Your task to perform on an android device: toggle pop-ups in chrome Image 0: 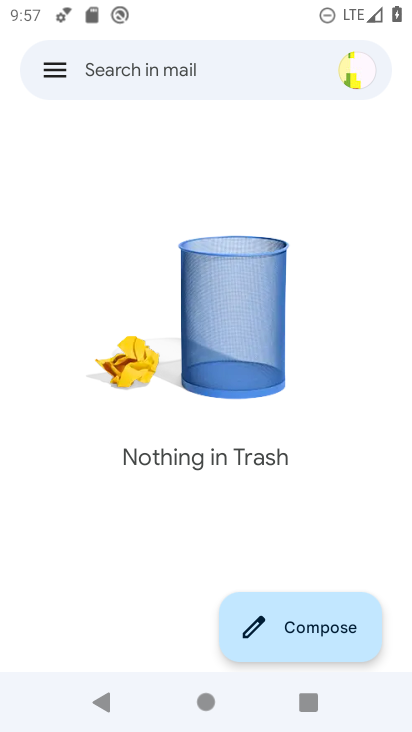
Step 0: press home button
Your task to perform on an android device: toggle pop-ups in chrome Image 1: 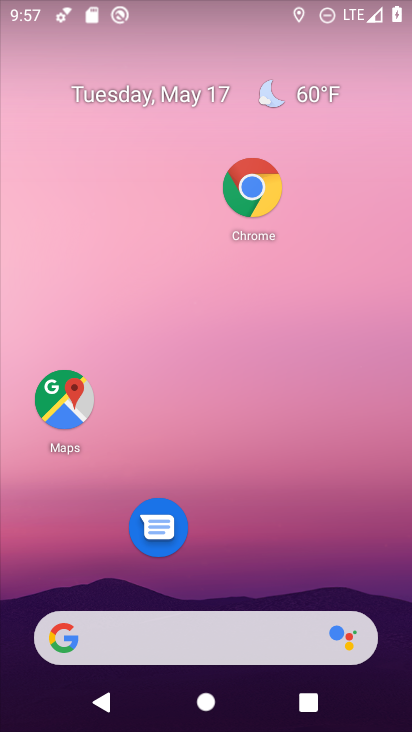
Step 1: click (259, 227)
Your task to perform on an android device: toggle pop-ups in chrome Image 2: 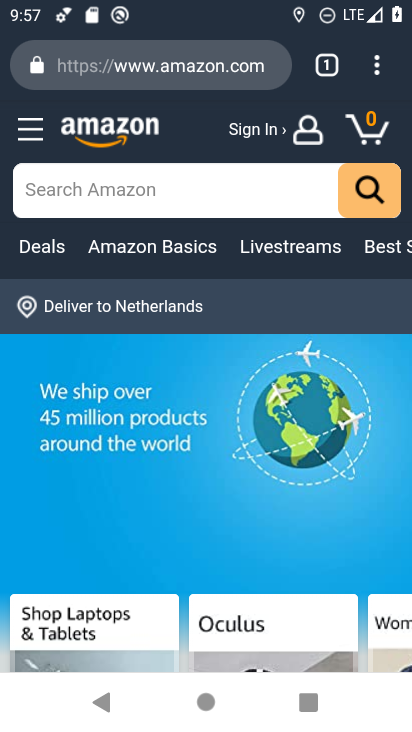
Step 2: click (387, 66)
Your task to perform on an android device: toggle pop-ups in chrome Image 3: 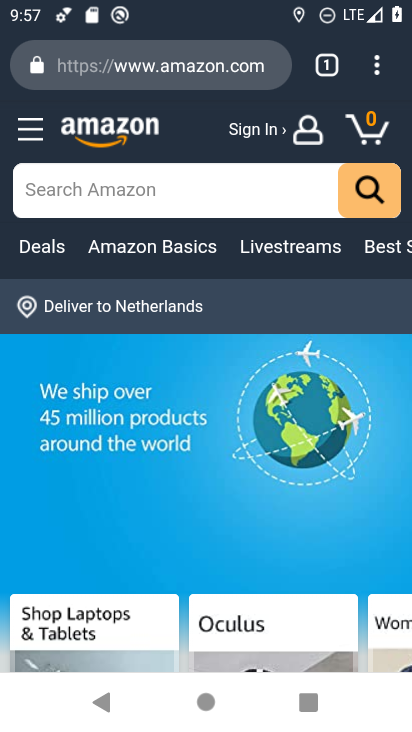
Step 3: click (372, 73)
Your task to perform on an android device: toggle pop-ups in chrome Image 4: 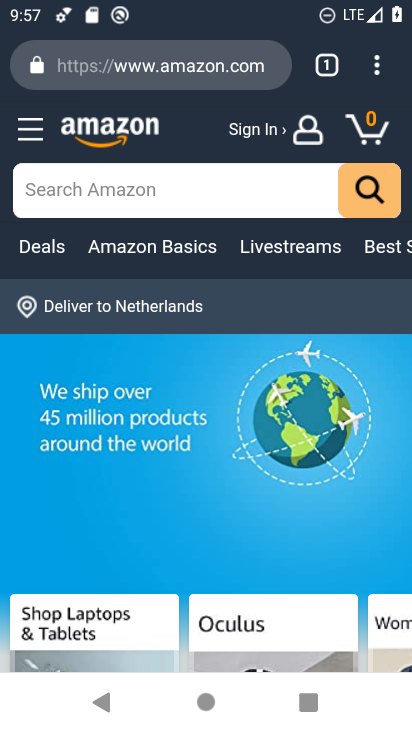
Step 4: click (376, 57)
Your task to perform on an android device: toggle pop-ups in chrome Image 5: 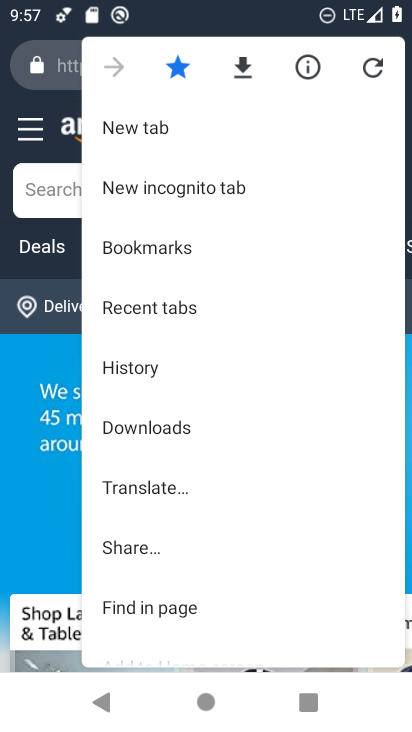
Step 5: drag from (196, 556) to (246, 372)
Your task to perform on an android device: toggle pop-ups in chrome Image 6: 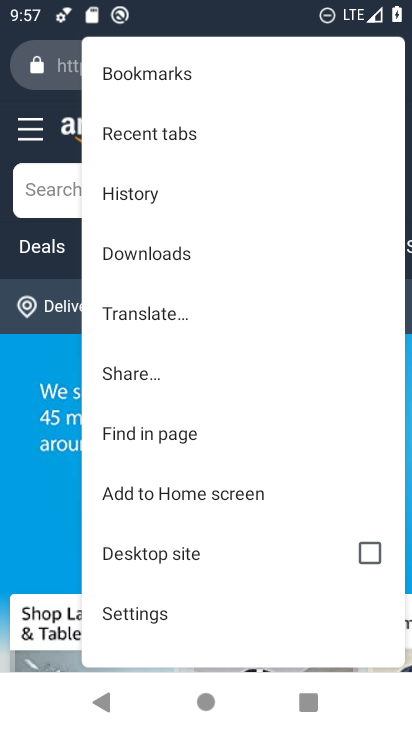
Step 6: click (218, 624)
Your task to perform on an android device: toggle pop-ups in chrome Image 7: 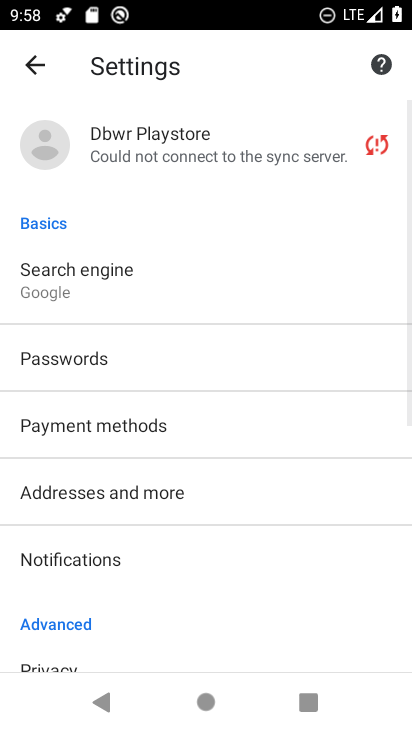
Step 7: drag from (219, 465) to (227, 221)
Your task to perform on an android device: toggle pop-ups in chrome Image 8: 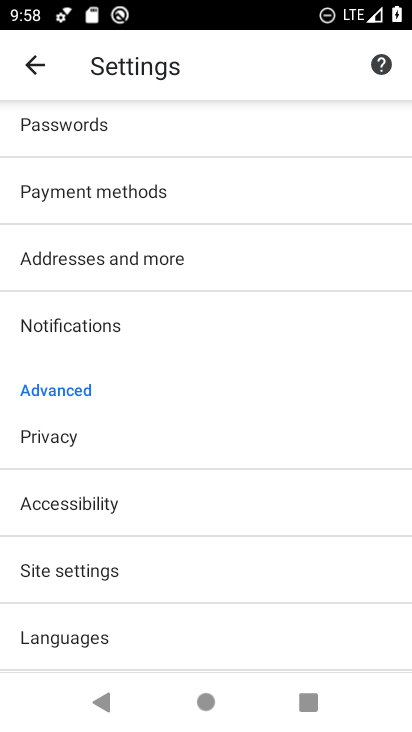
Step 8: drag from (170, 600) to (178, 411)
Your task to perform on an android device: toggle pop-ups in chrome Image 9: 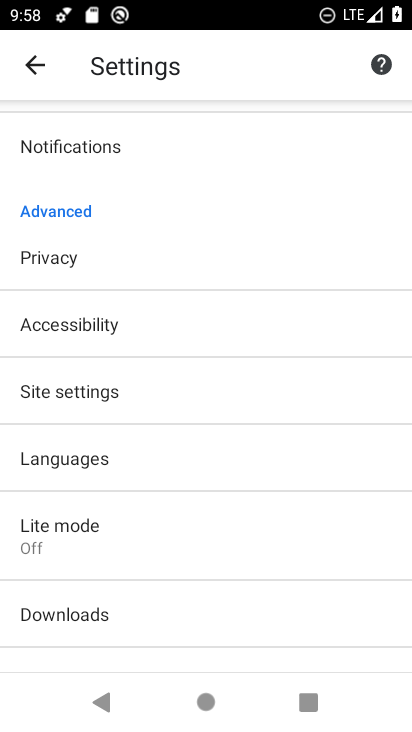
Step 9: drag from (180, 547) to (186, 375)
Your task to perform on an android device: toggle pop-ups in chrome Image 10: 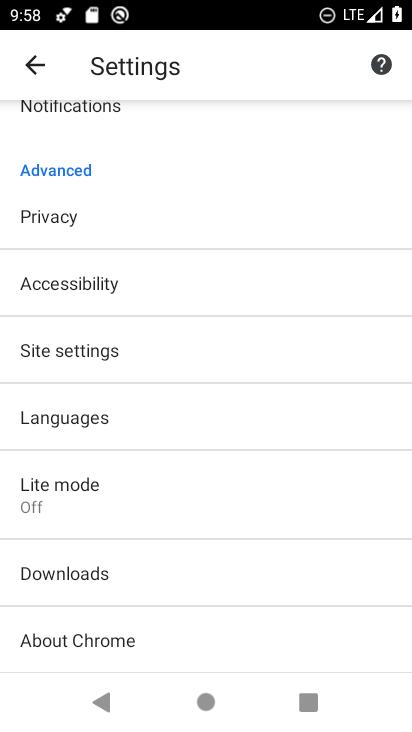
Step 10: click (186, 363)
Your task to perform on an android device: toggle pop-ups in chrome Image 11: 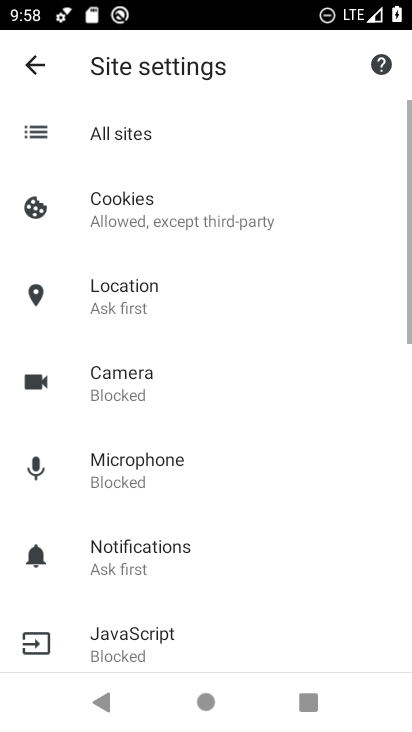
Step 11: drag from (180, 572) to (214, 212)
Your task to perform on an android device: toggle pop-ups in chrome Image 12: 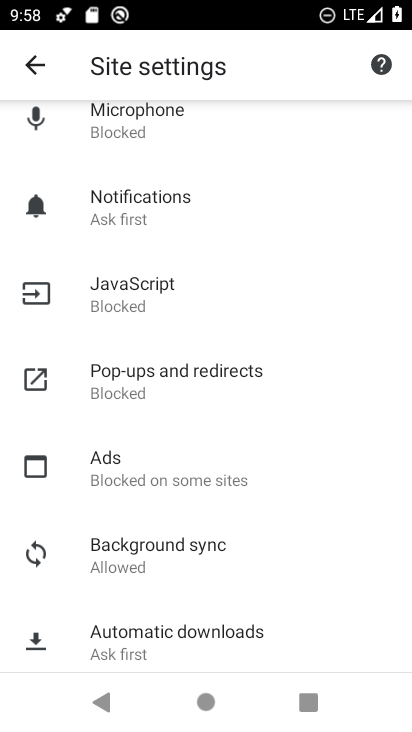
Step 12: click (228, 401)
Your task to perform on an android device: toggle pop-ups in chrome Image 13: 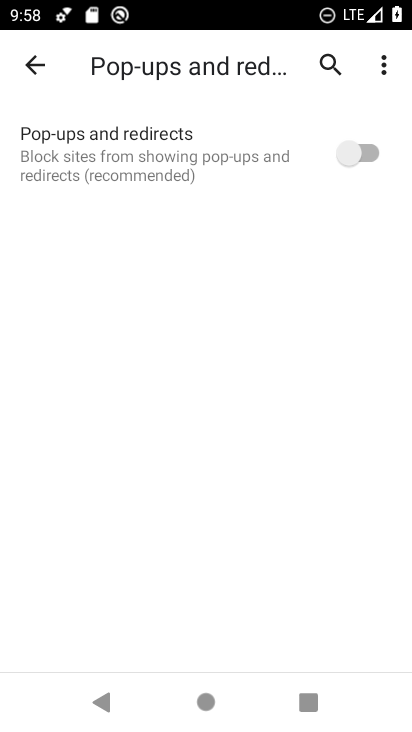
Step 13: click (358, 157)
Your task to perform on an android device: toggle pop-ups in chrome Image 14: 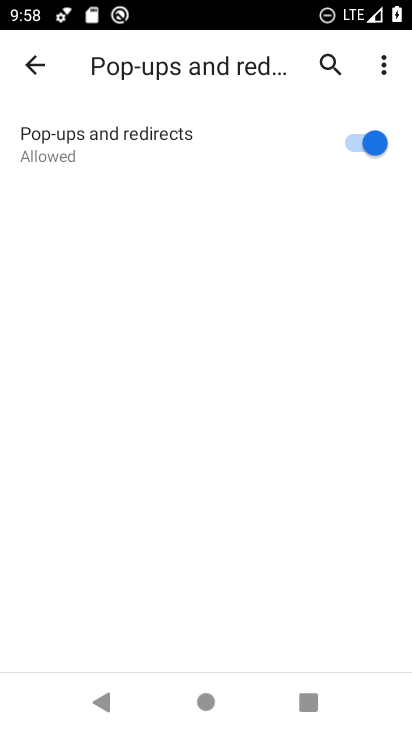
Step 14: task complete